Your task to perform on an android device: choose inbox layout in the gmail app Image 0: 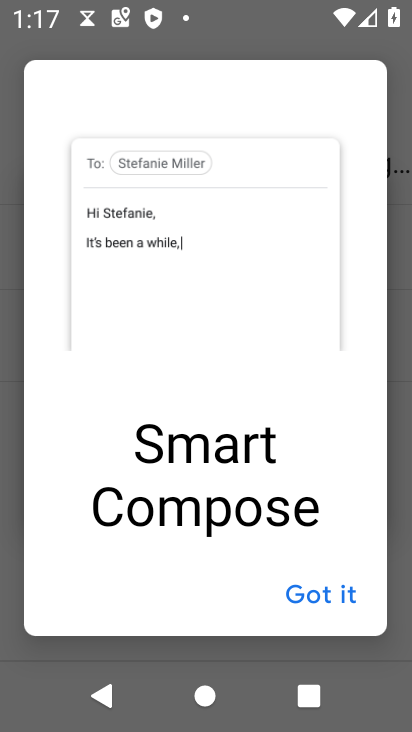
Step 0: press home button
Your task to perform on an android device: choose inbox layout in the gmail app Image 1: 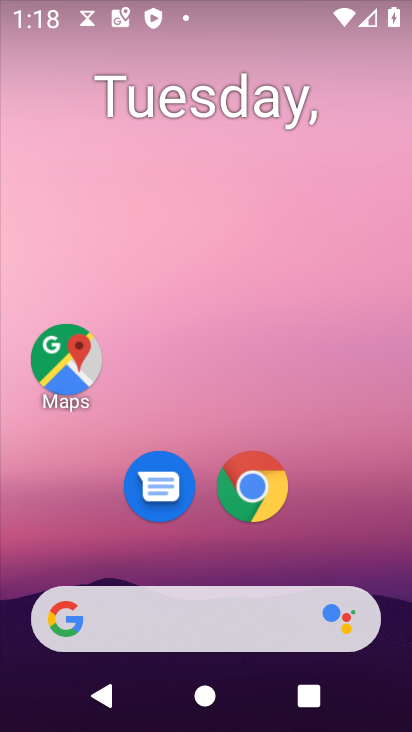
Step 1: drag from (330, 513) to (244, 77)
Your task to perform on an android device: choose inbox layout in the gmail app Image 2: 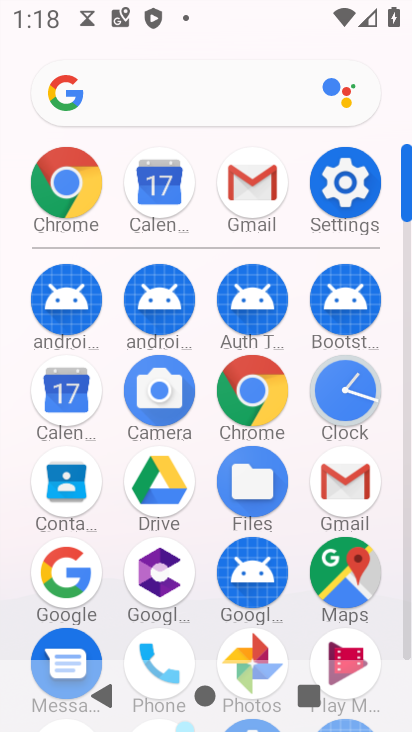
Step 2: click (253, 184)
Your task to perform on an android device: choose inbox layout in the gmail app Image 3: 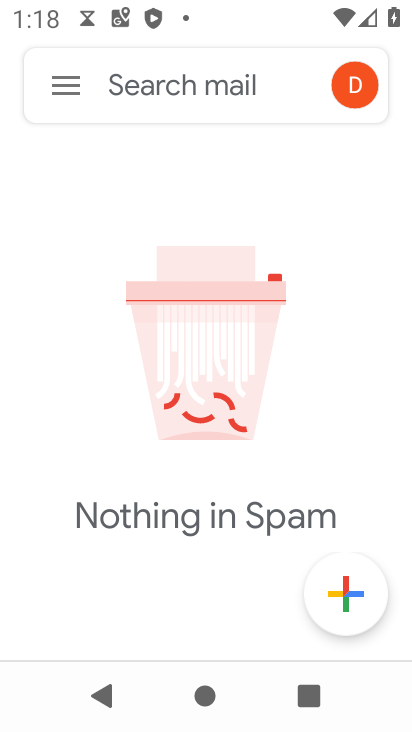
Step 3: click (66, 102)
Your task to perform on an android device: choose inbox layout in the gmail app Image 4: 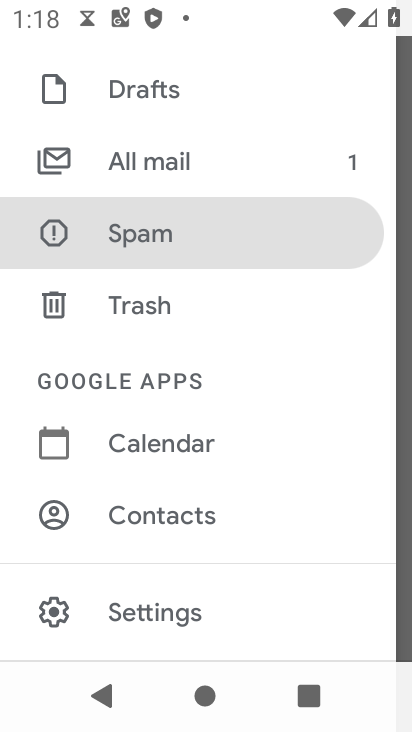
Step 4: drag from (219, 603) to (235, 246)
Your task to perform on an android device: choose inbox layout in the gmail app Image 5: 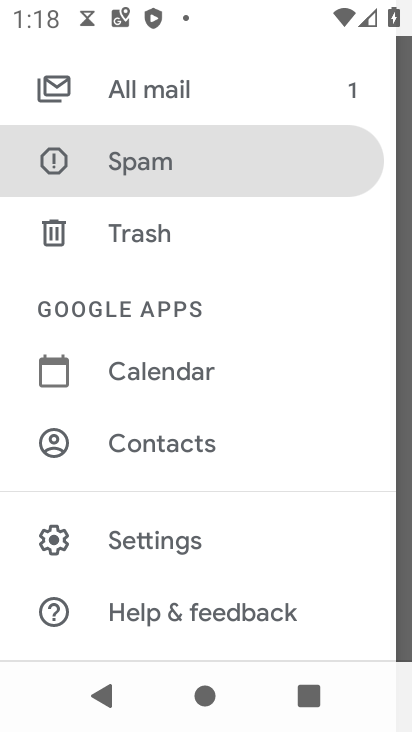
Step 5: click (249, 538)
Your task to perform on an android device: choose inbox layout in the gmail app Image 6: 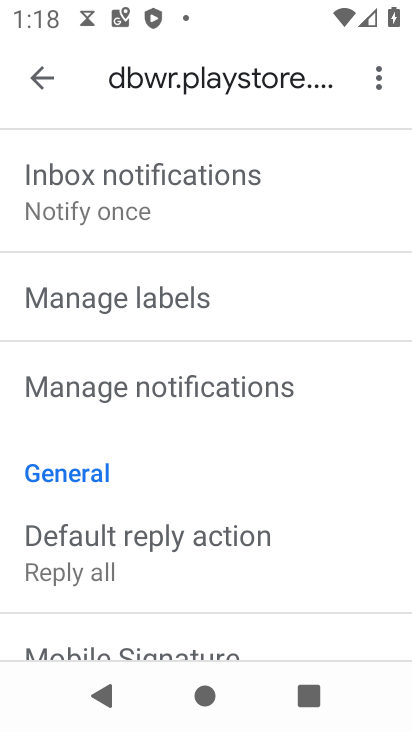
Step 6: drag from (231, 264) to (288, 728)
Your task to perform on an android device: choose inbox layout in the gmail app Image 7: 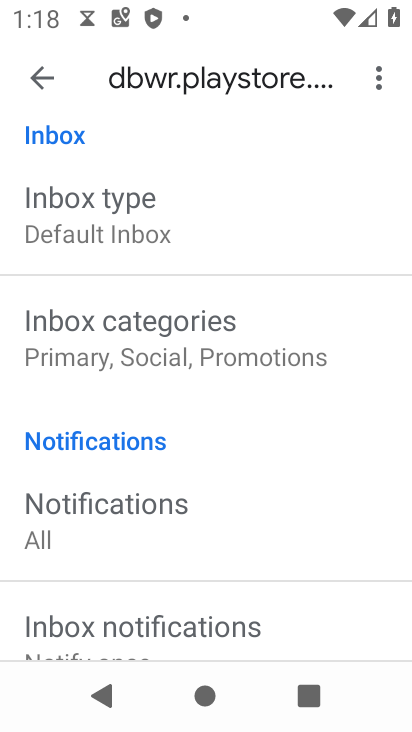
Step 7: click (212, 211)
Your task to perform on an android device: choose inbox layout in the gmail app Image 8: 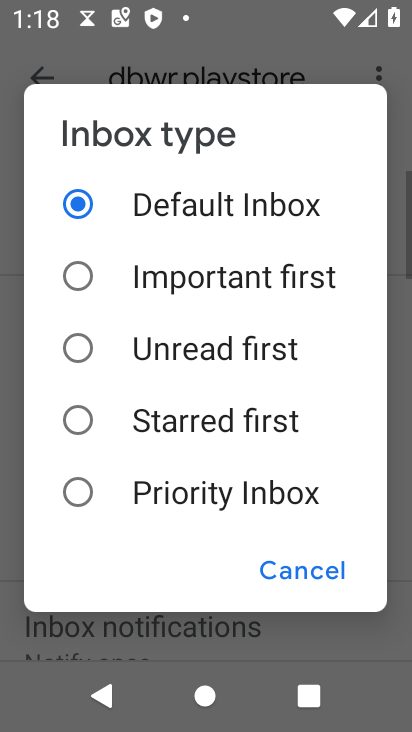
Step 8: click (232, 299)
Your task to perform on an android device: choose inbox layout in the gmail app Image 9: 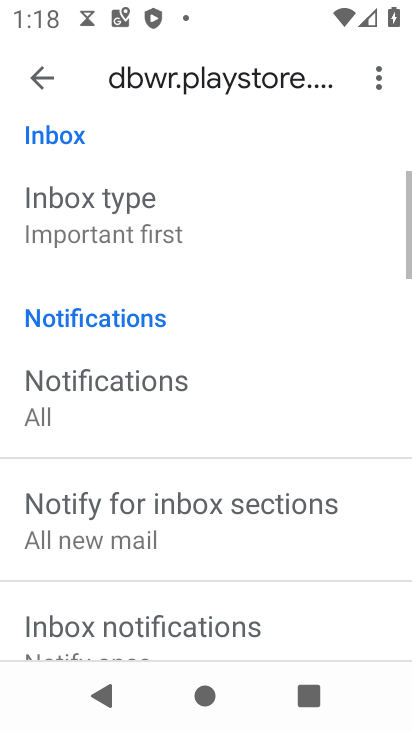
Step 9: task complete